Your task to perform on an android device: Open CNN.com Image 0: 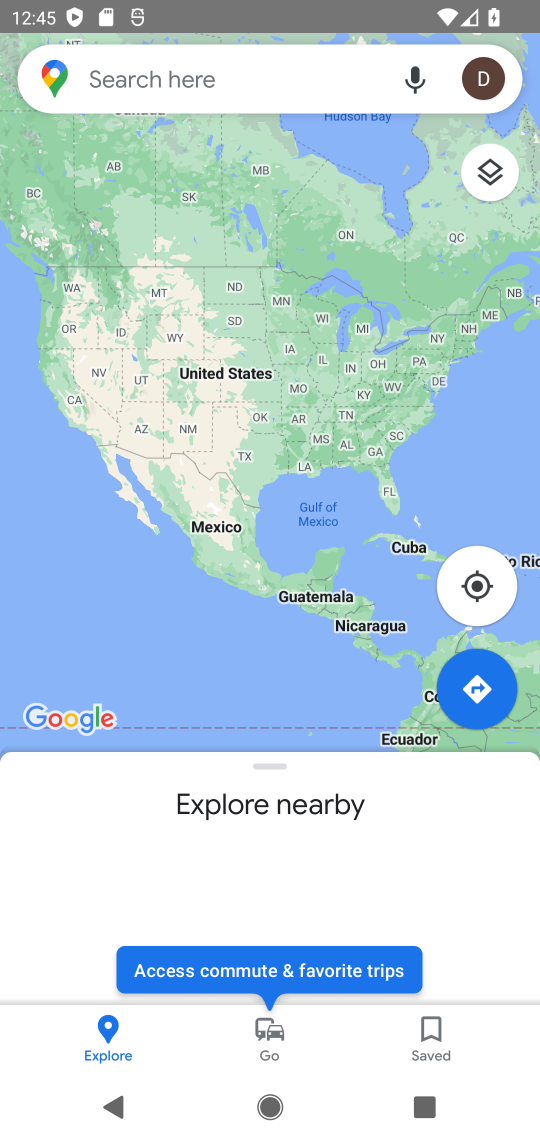
Step 0: press home button
Your task to perform on an android device: Open CNN.com Image 1: 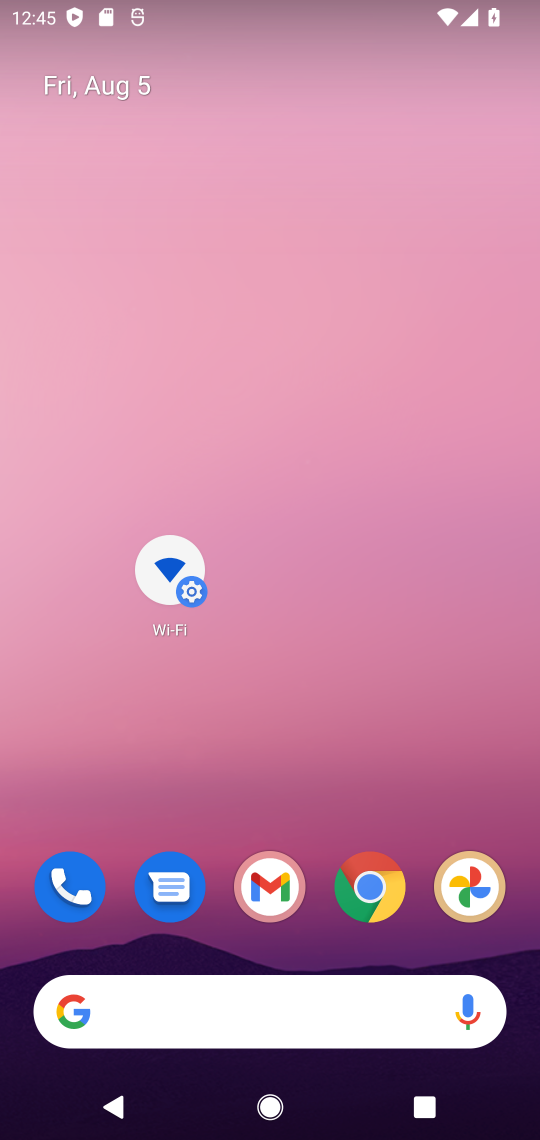
Step 1: click (390, 901)
Your task to perform on an android device: Open CNN.com Image 2: 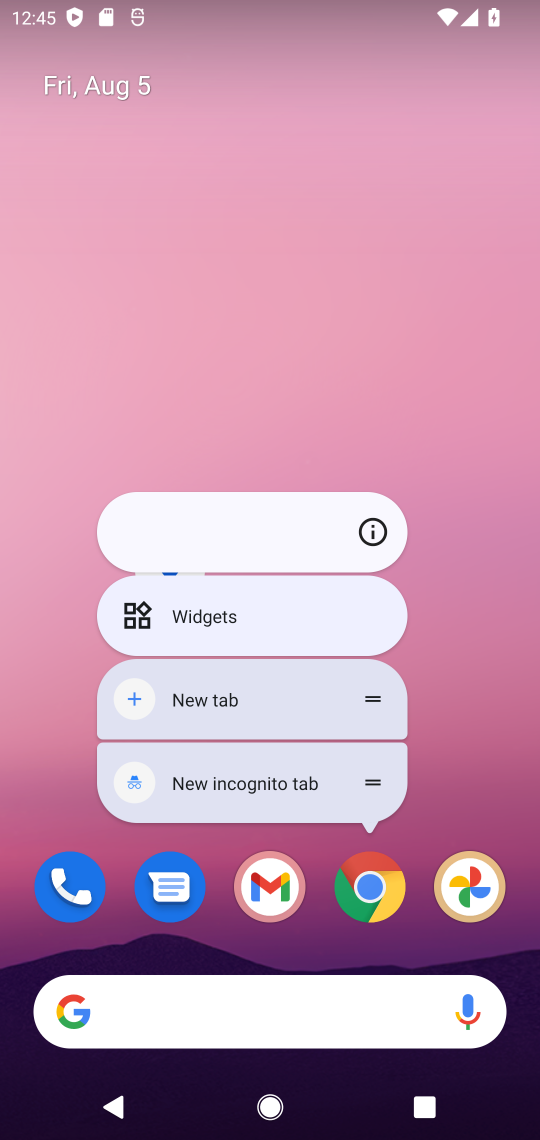
Step 2: click (390, 901)
Your task to perform on an android device: Open CNN.com Image 3: 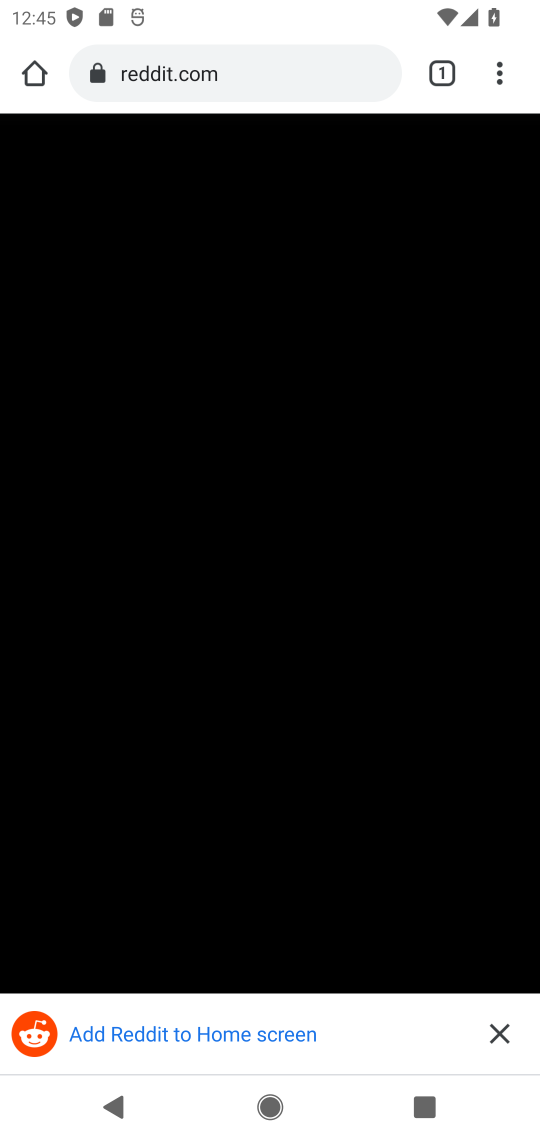
Step 3: click (237, 74)
Your task to perform on an android device: Open CNN.com Image 4: 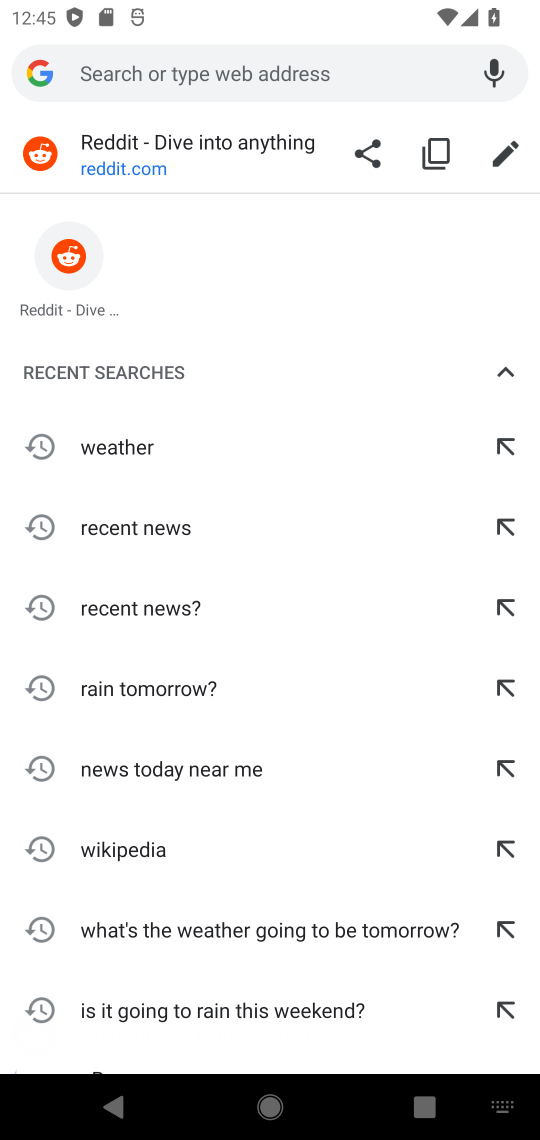
Step 4: type "cnn.com"
Your task to perform on an android device: Open CNN.com Image 5: 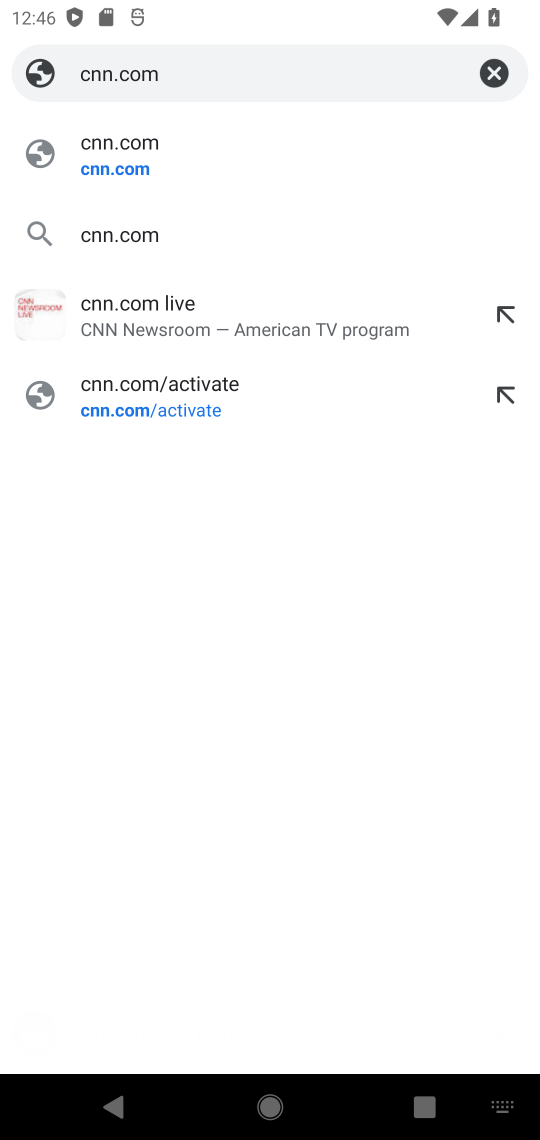
Step 5: click (137, 158)
Your task to perform on an android device: Open CNN.com Image 6: 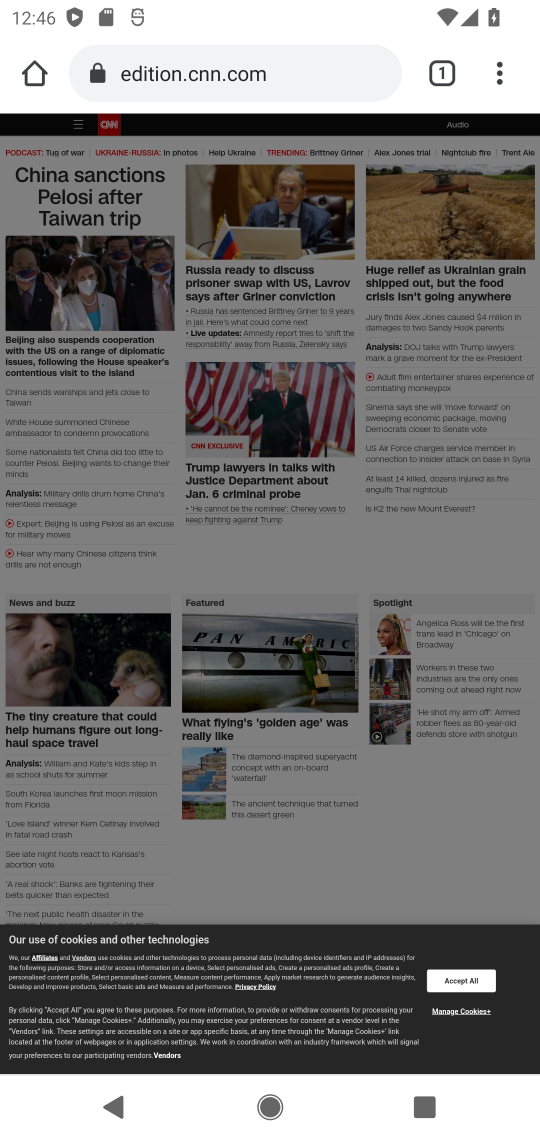
Step 6: task complete